Your task to perform on an android device: Turn on the flashlight Image 0: 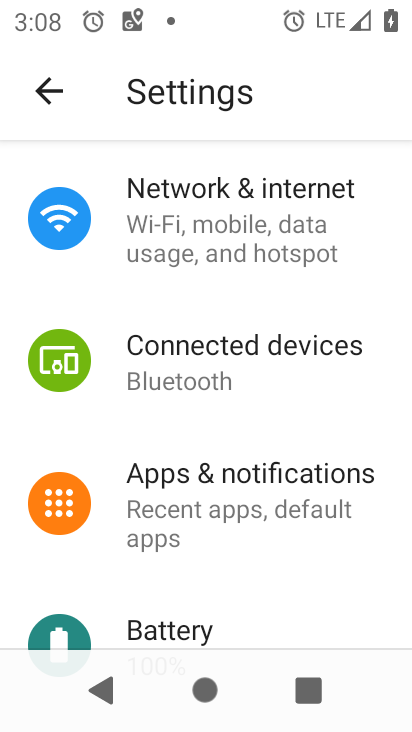
Step 0: press home button
Your task to perform on an android device: Turn on the flashlight Image 1: 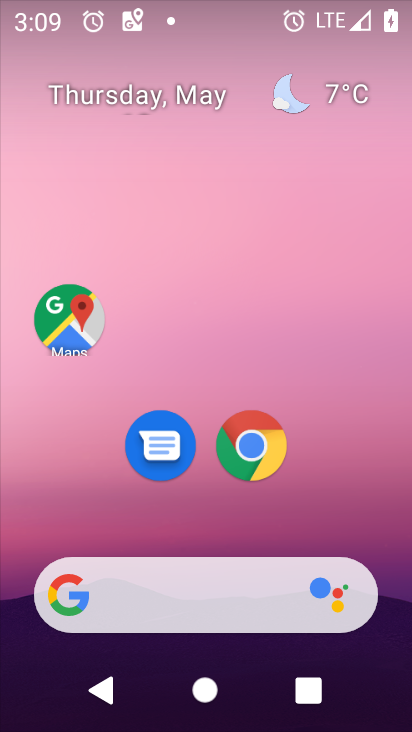
Step 1: task complete